Your task to perform on an android device: Open Wikipedia Image 0: 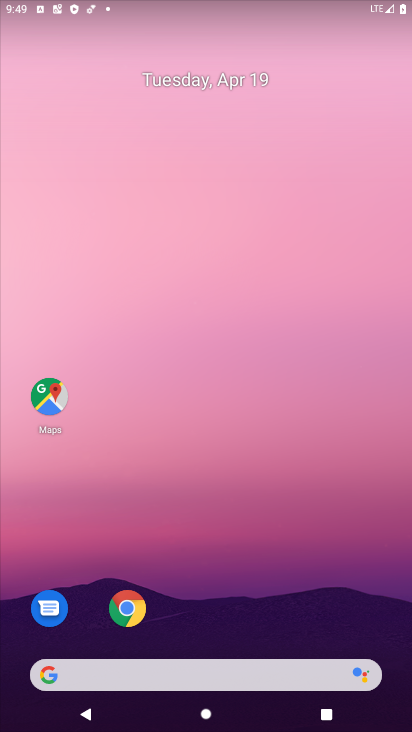
Step 0: click (130, 609)
Your task to perform on an android device: Open Wikipedia Image 1: 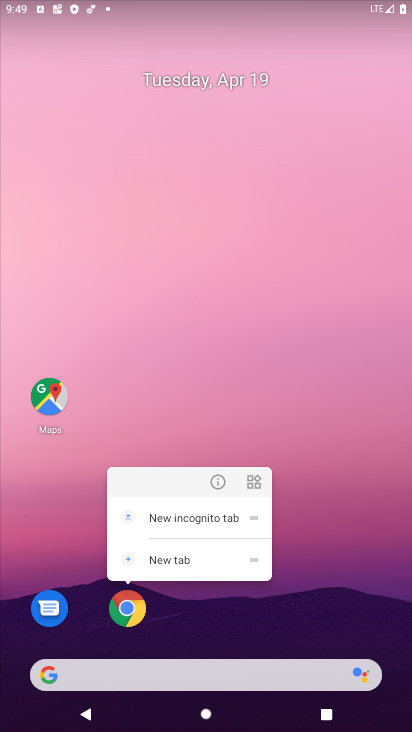
Step 1: click (124, 609)
Your task to perform on an android device: Open Wikipedia Image 2: 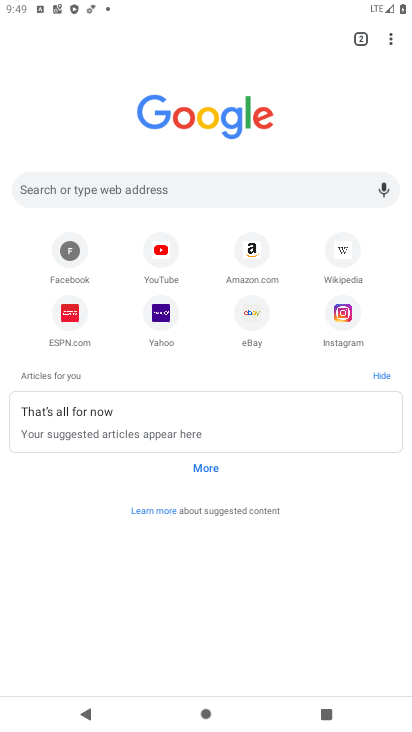
Step 2: click (340, 249)
Your task to perform on an android device: Open Wikipedia Image 3: 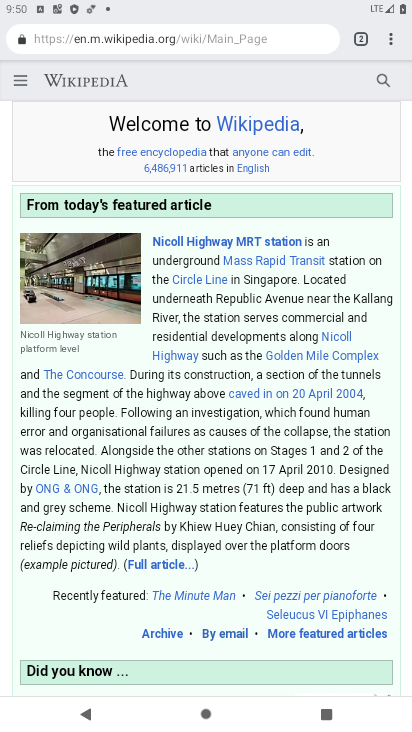
Step 3: task complete